Your task to perform on an android device: toggle notification dots Image 0: 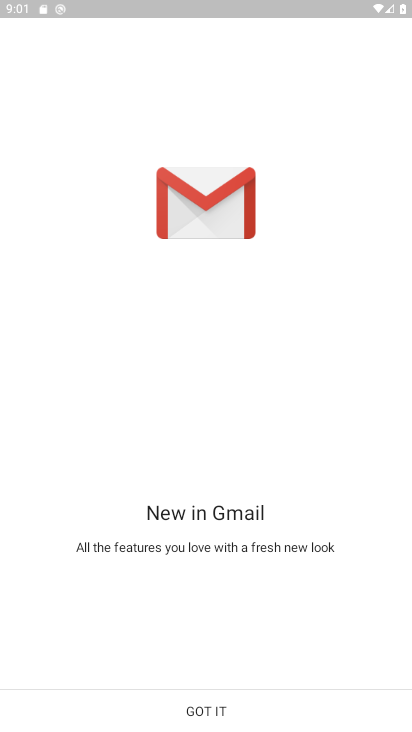
Step 0: press home button
Your task to perform on an android device: toggle notification dots Image 1: 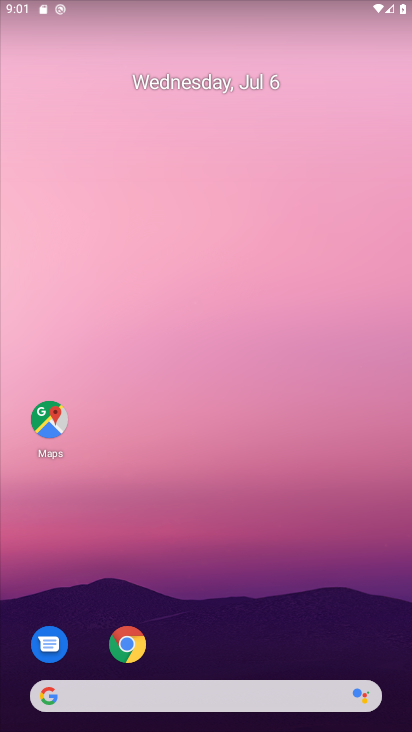
Step 1: drag from (253, 700) to (258, 216)
Your task to perform on an android device: toggle notification dots Image 2: 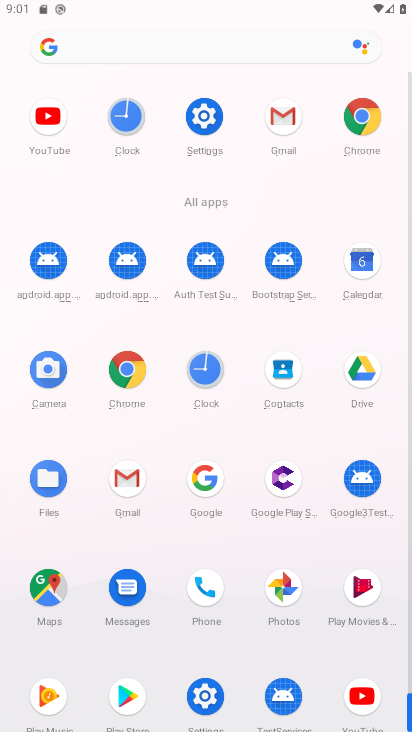
Step 2: click (188, 132)
Your task to perform on an android device: toggle notification dots Image 3: 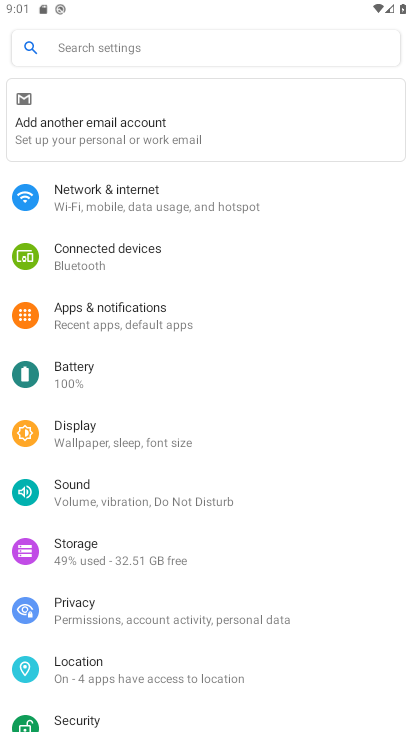
Step 3: click (149, 320)
Your task to perform on an android device: toggle notification dots Image 4: 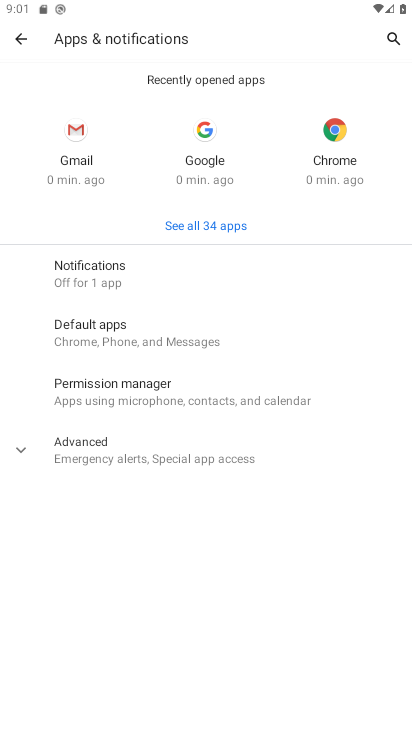
Step 4: click (171, 268)
Your task to perform on an android device: toggle notification dots Image 5: 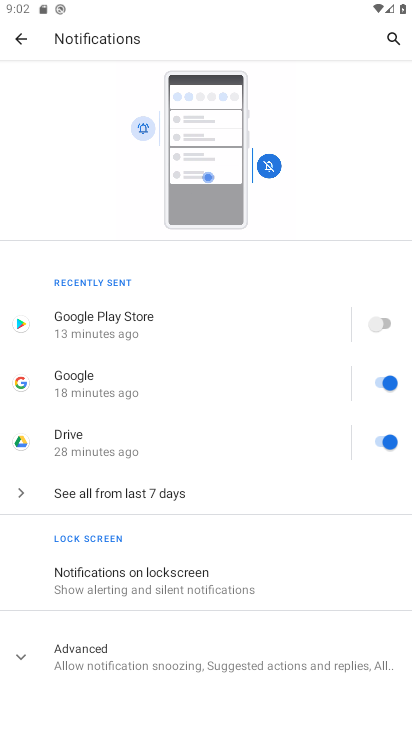
Step 5: drag from (187, 594) to (185, 408)
Your task to perform on an android device: toggle notification dots Image 6: 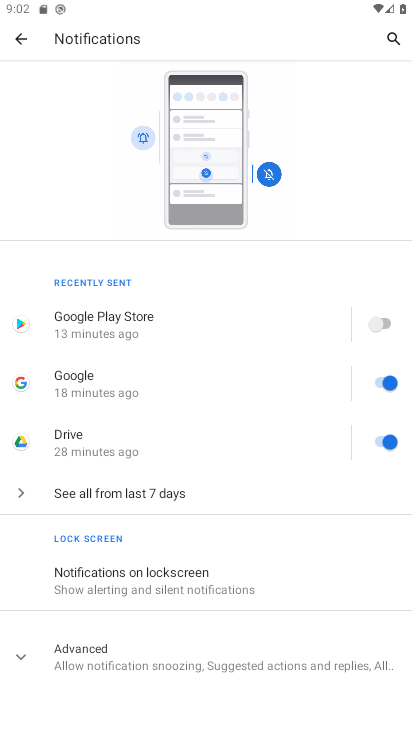
Step 6: drag from (160, 629) to (214, 288)
Your task to perform on an android device: toggle notification dots Image 7: 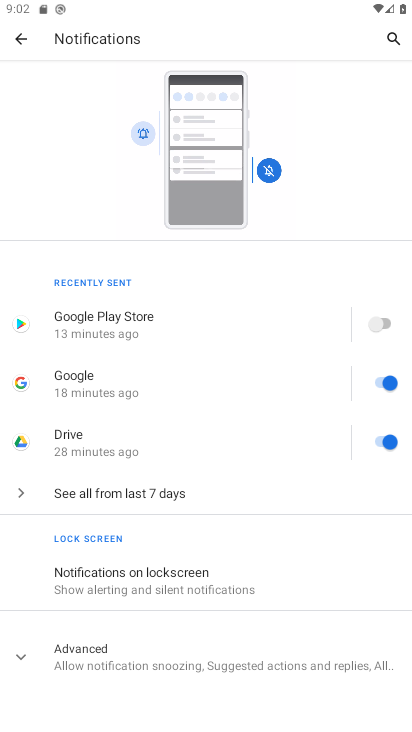
Step 7: click (183, 666)
Your task to perform on an android device: toggle notification dots Image 8: 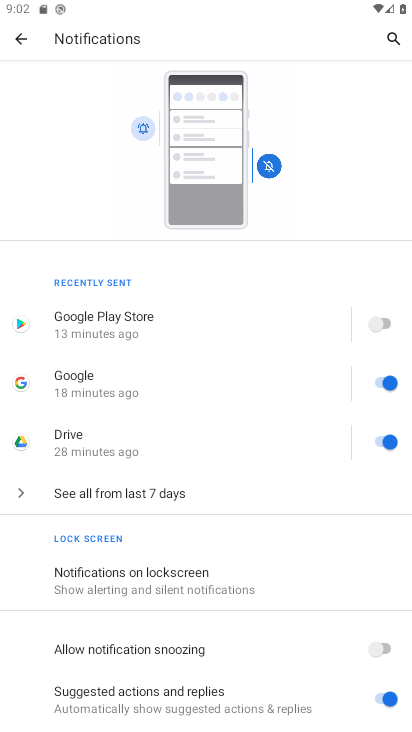
Step 8: drag from (187, 549) to (211, 283)
Your task to perform on an android device: toggle notification dots Image 9: 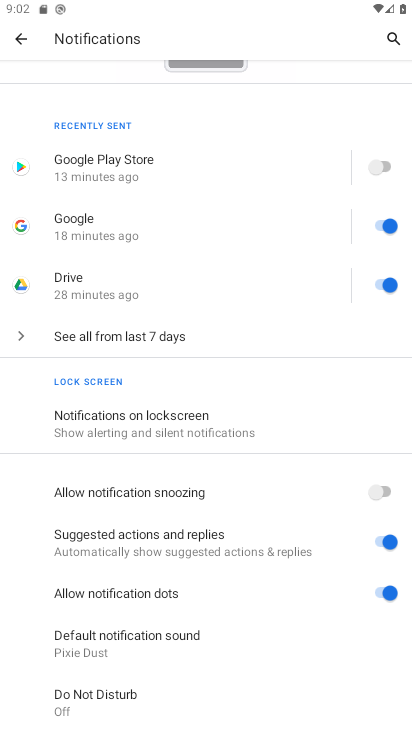
Step 9: click (213, 588)
Your task to perform on an android device: toggle notification dots Image 10: 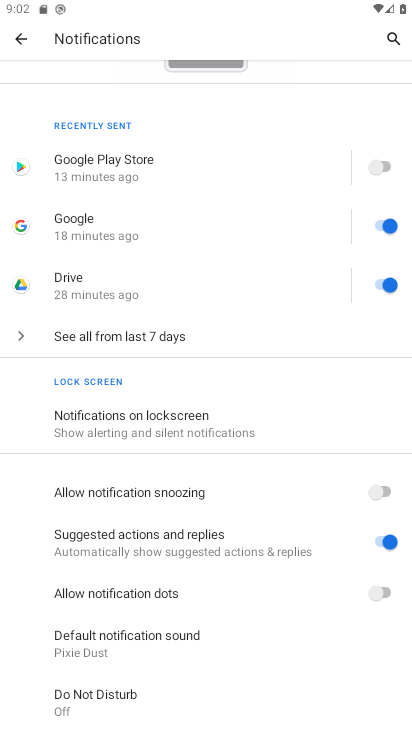
Step 10: task complete